Your task to perform on an android device: Open accessibility settings Image 0: 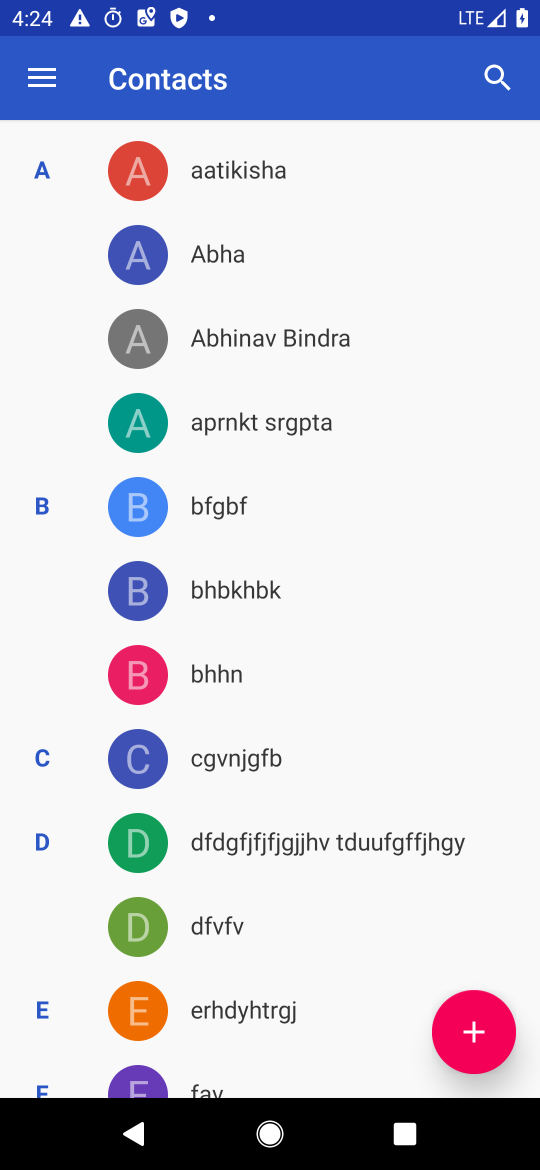
Step 0: press home button
Your task to perform on an android device: Open accessibility settings Image 1: 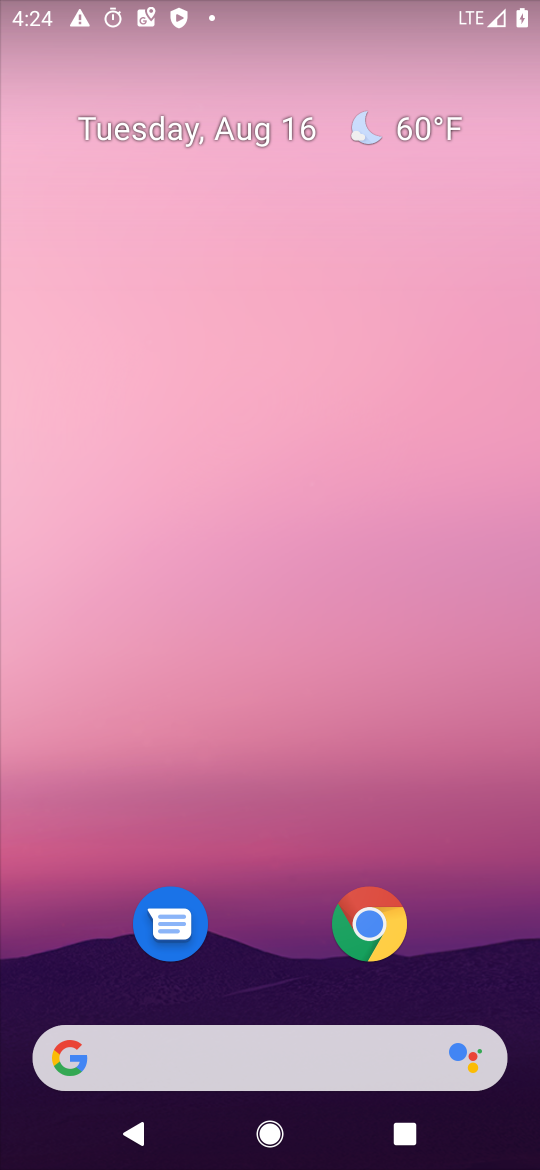
Step 1: press home button
Your task to perform on an android device: Open accessibility settings Image 2: 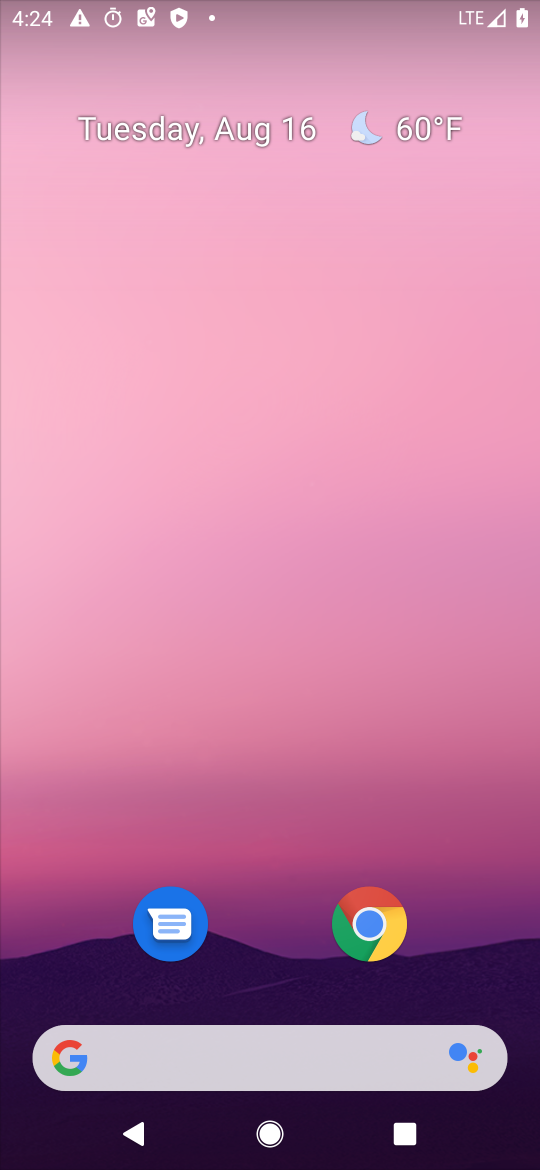
Step 2: drag from (309, 1010) to (373, 465)
Your task to perform on an android device: Open accessibility settings Image 3: 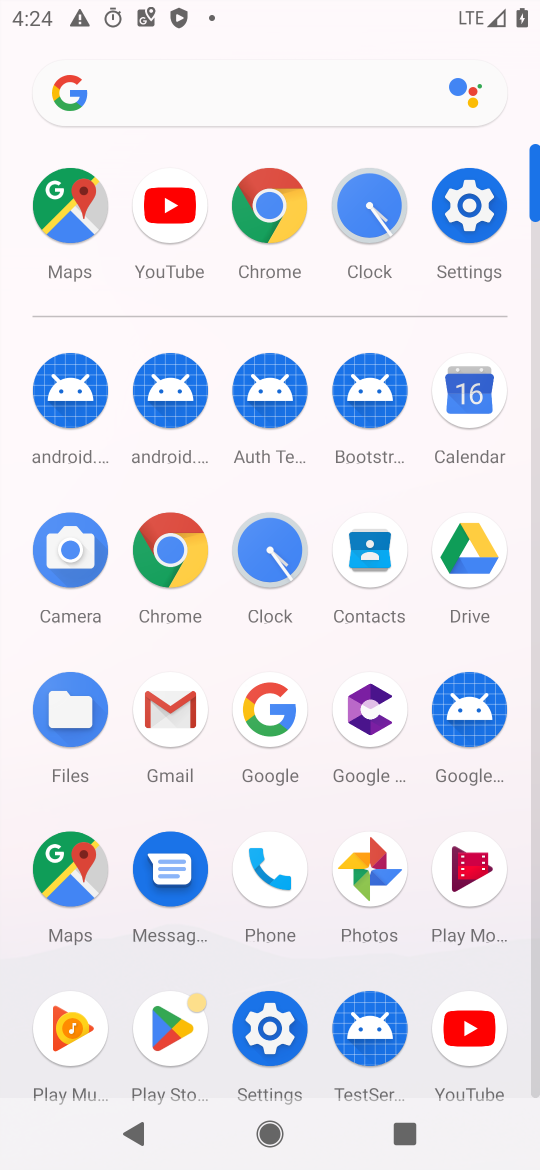
Step 3: click (441, 218)
Your task to perform on an android device: Open accessibility settings Image 4: 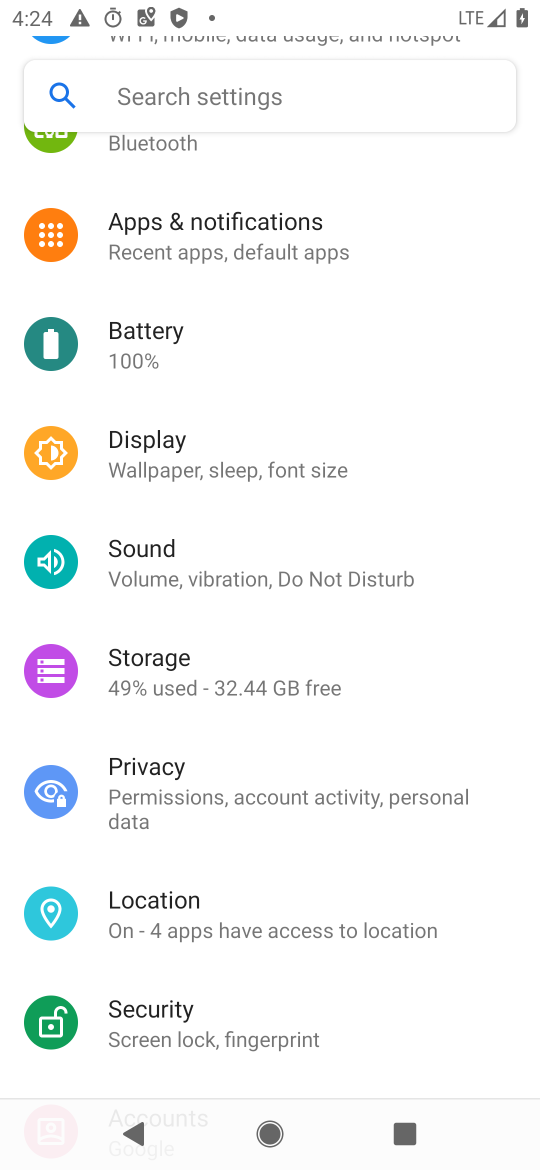
Step 4: drag from (154, 983) to (179, 353)
Your task to perform on an android device: Open accessibility settings Image 5: 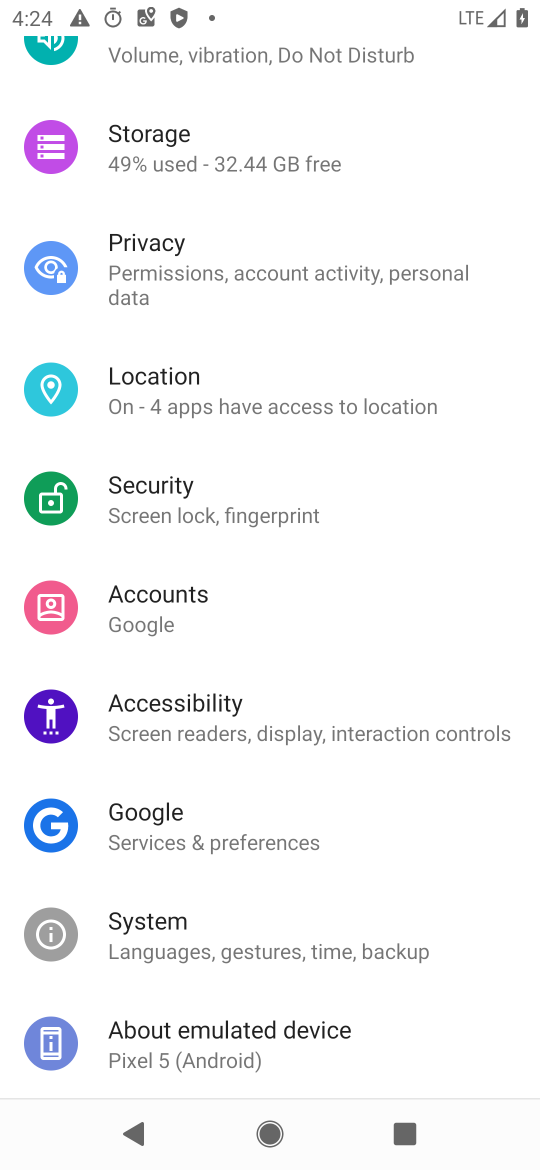
Step 5: click (223, 727)
Your task to perform on an android device: Open accessibility settings Image 6: 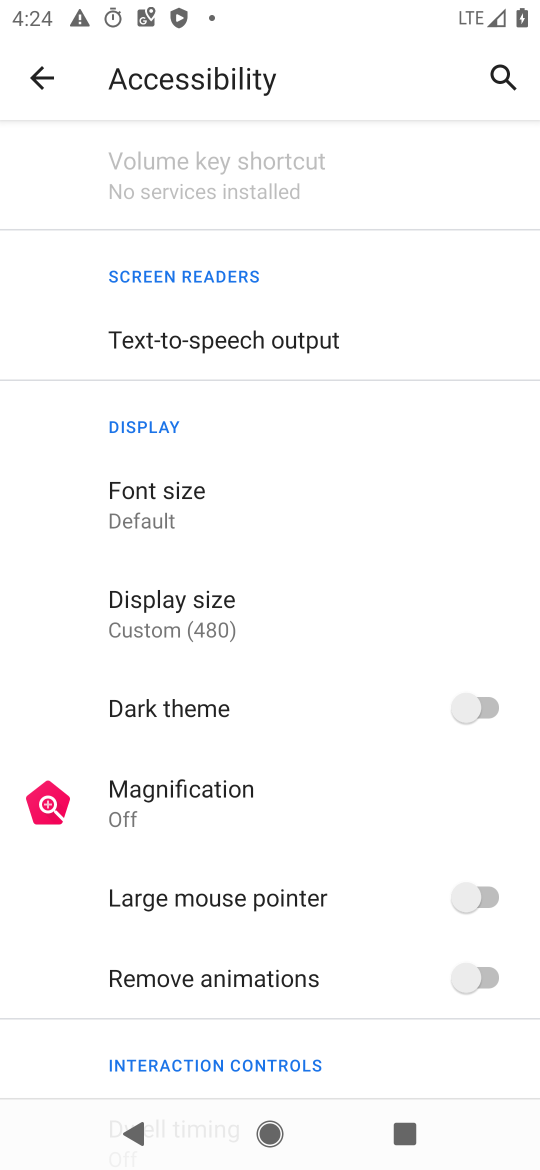
Step 6: task complete